Your task to perform on an android device: Open Chrome and go to settings Image 0: 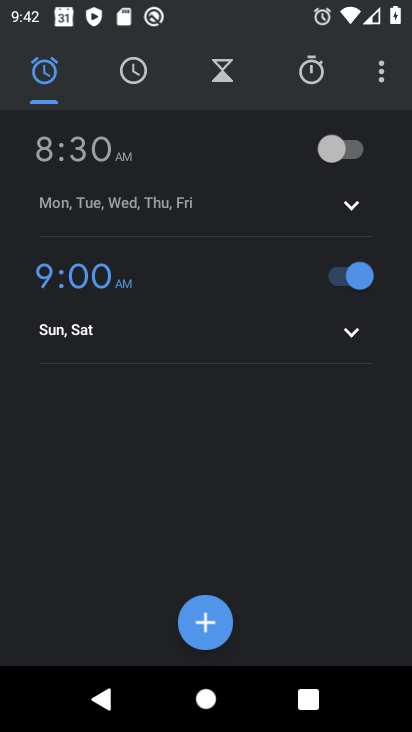
Step 0: press home button
Your task to perform on an android device: Open Chrome and go to settings Image 1: 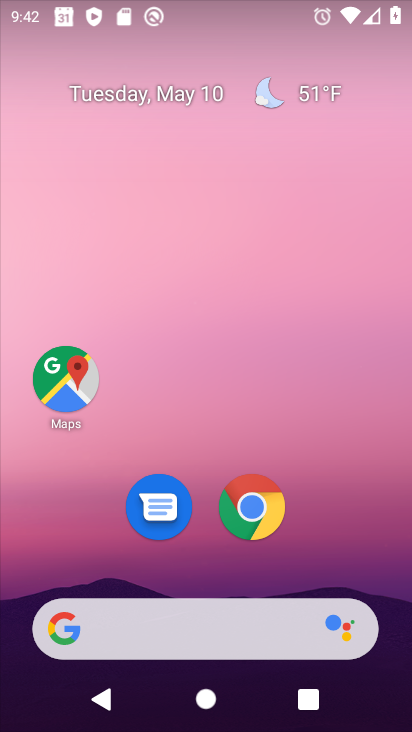
Step 1: click (253, 512)
Your task to perform on an android device: Open Chrome and go to settings Image 2: 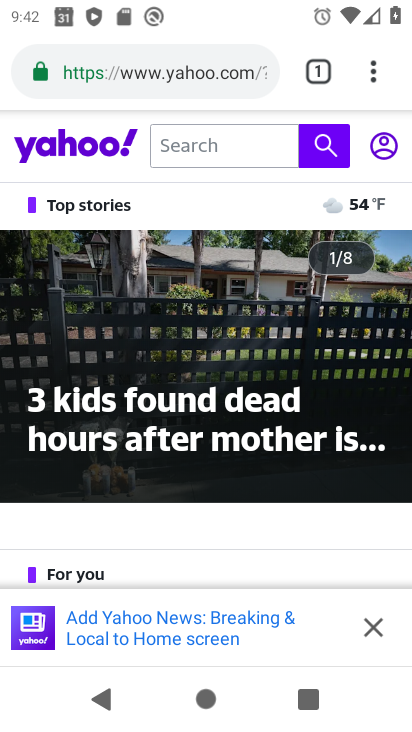
Step 2: click (359, 54)
Your task to perform on an android device: Open Chrome and go to settings Image 3: 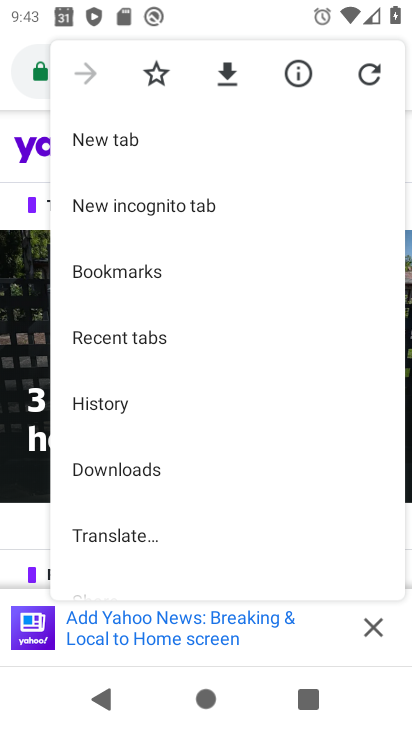
Step 3: drag from (170, 498) to (218, 126)
Your task to perform on an android device: Open Chrome and go to settings Image 4: 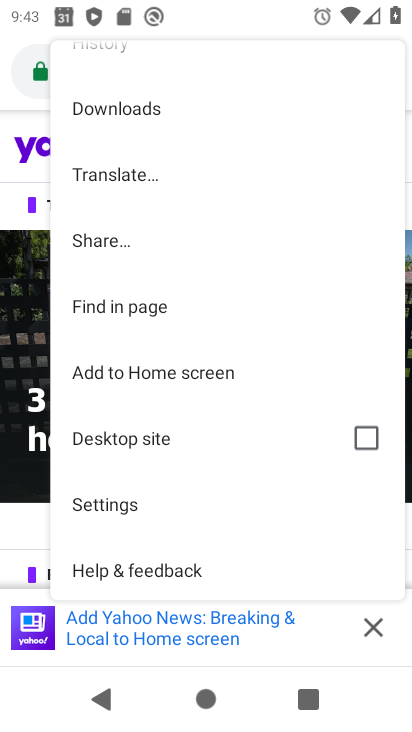
Step 4: click (109, 518)
Your task to perform on an android device: Open Chrome and go to settings Image 5: 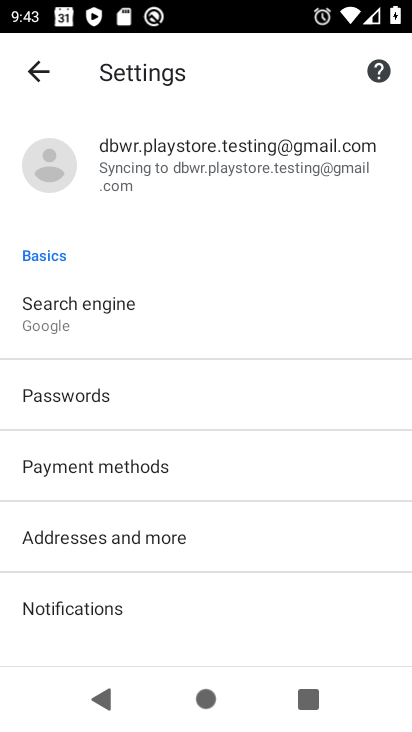
Step 5: task complete